Your task to perform on an android device: Open the map Image 0: 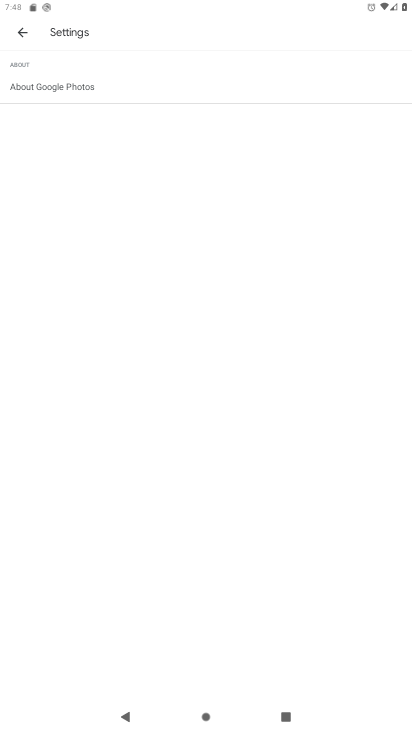
Step 0: press home button
Your task to perform on an android device: Open the map Image 1: 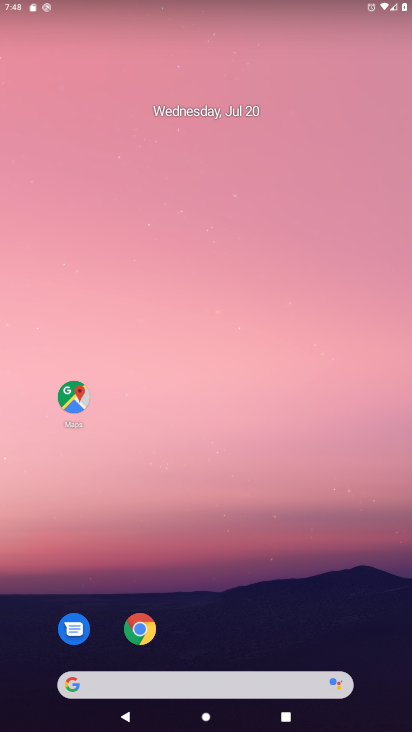
Step 1: click (80, 398)
Your task to perform on an android device: Open the map Image 2: 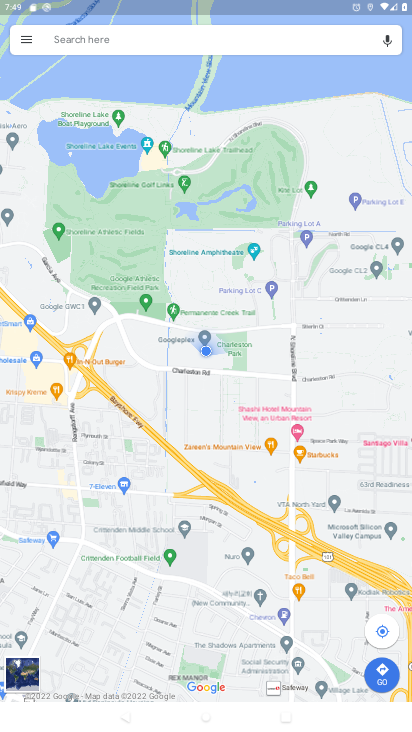
Step 2: task complete